Your task to perform on an android device: open app "LinkedIn" Image 0: 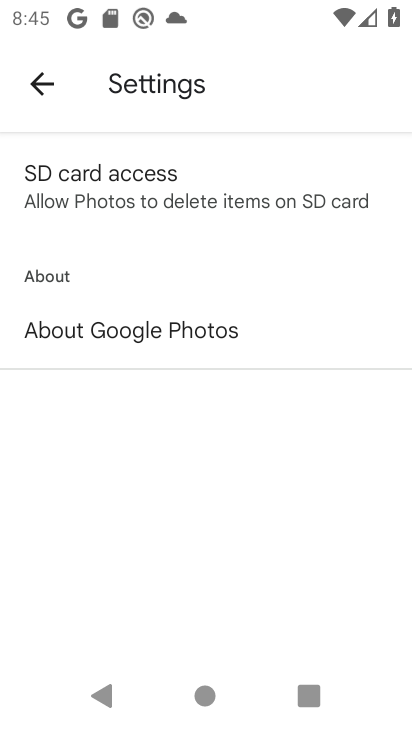
Step 0: click (43, 82)
Your task to perform on an android device: open app "LinkedIn" Image 1: 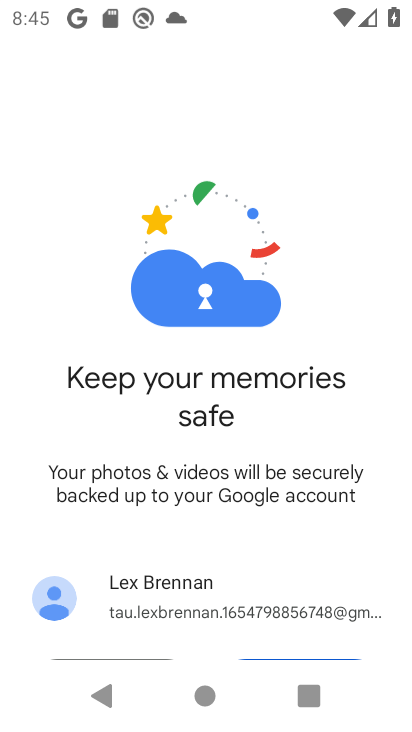
Step 1: press back button
Your task to perform on an android device: open app "LinkedIn" Image 2: 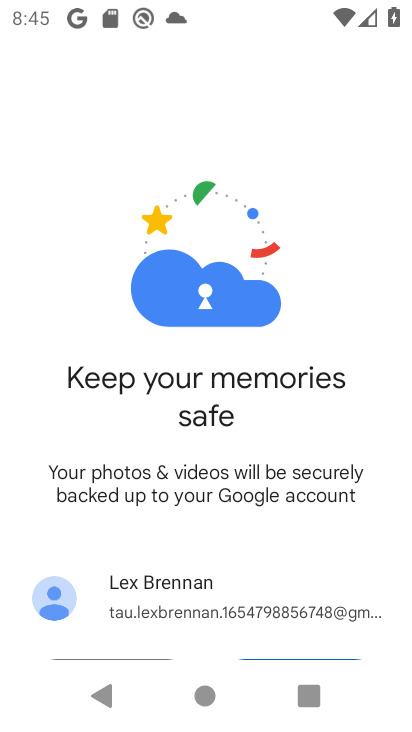
Step 2: press back button
Your task to perform on an android device: open app "LinkedIn" Image 3: 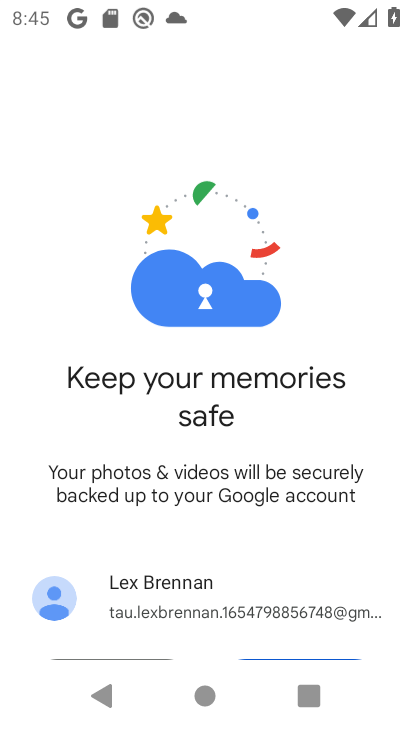
Step 3: press home button
Your task to perform on an android device: open app "LinkedIn" Image 4: 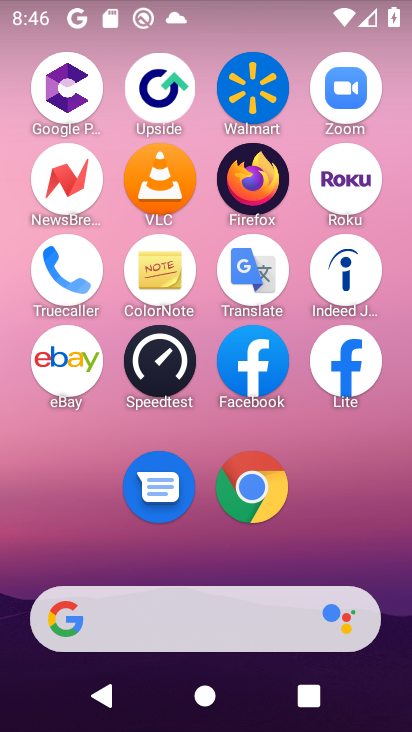
Step 4: press back button
Your task to perform on an android device: open app "LinkedIn" Image 5: 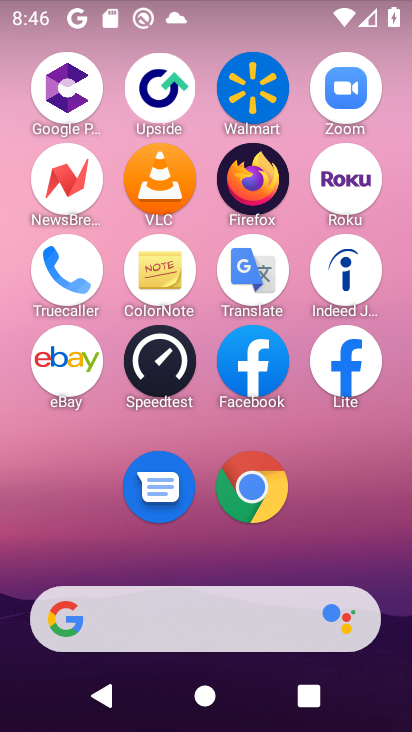
Step 5: press back button
Your task to perform on an android device: open app "LinkedIn" Image 6: 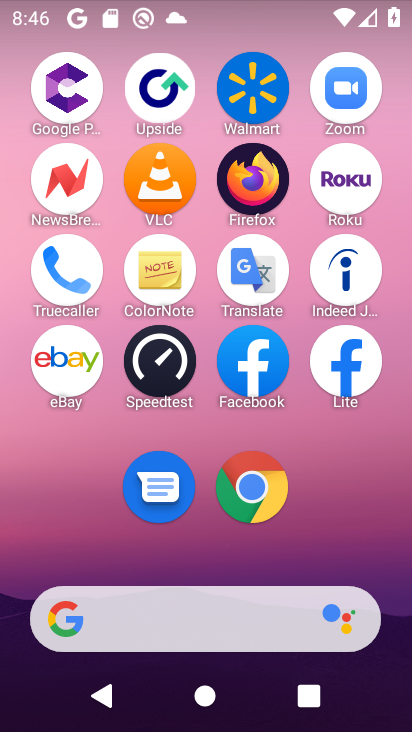
Step 6: press back button
Your task to perform on an android device: open app "LinkedIn" Image 7: 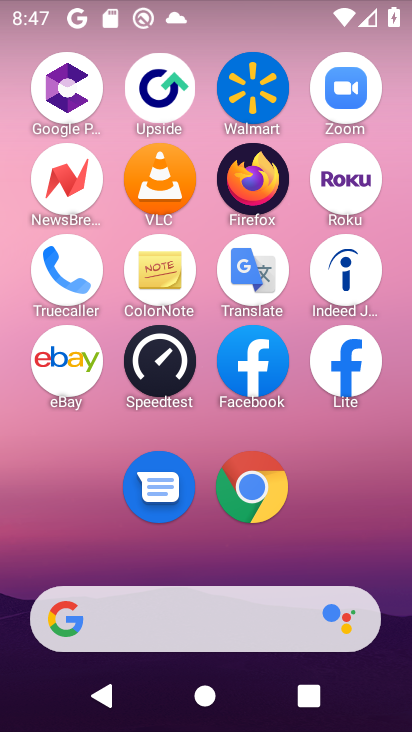
Step 7: drag from (283, 524) to (309, 39)
Your task to perform on an android device: open app "LinkedIn" Image 8: 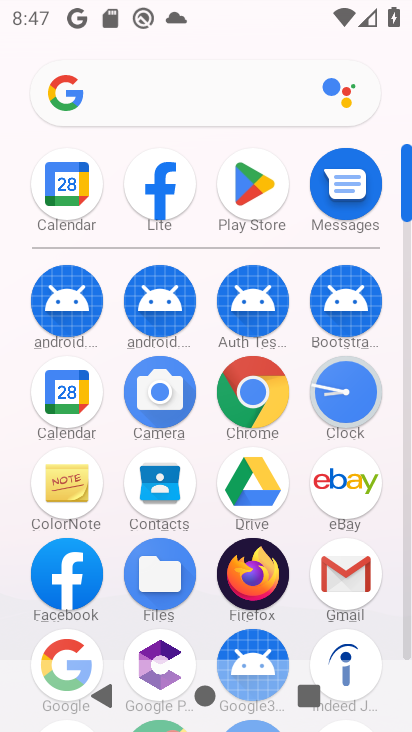
Step 8: click (243, 187)
Your task to perform on an android device: open app "LinkedIn" Image 9: 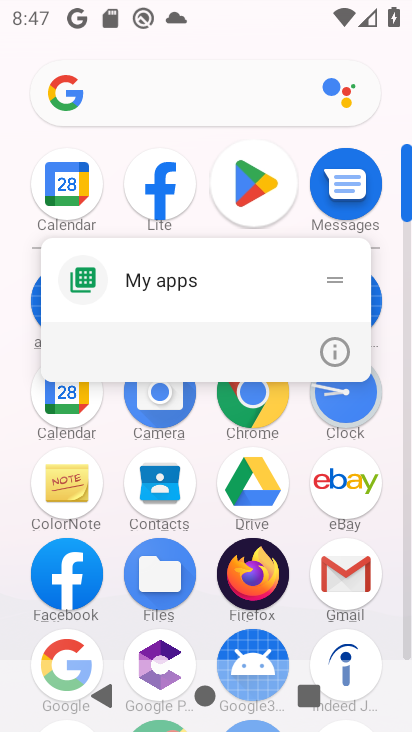
Step 9: click (245, 186)
Your task to perform on an android device: open app "LinkedIn" Image 10: 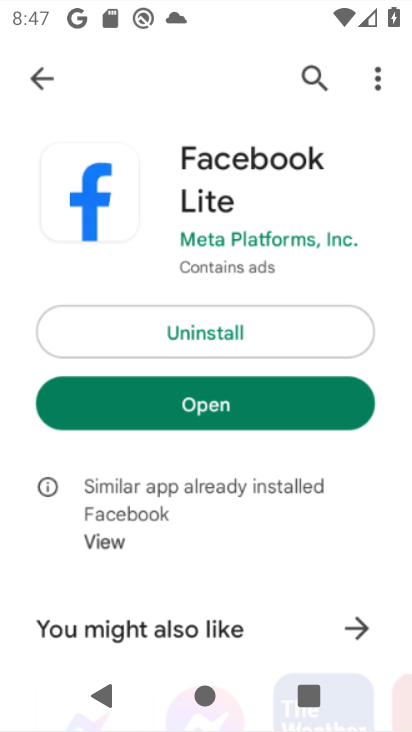
Step 10: click (248, 184)
Your task to perform on an android device: open app "LinkedIn" Image 11: 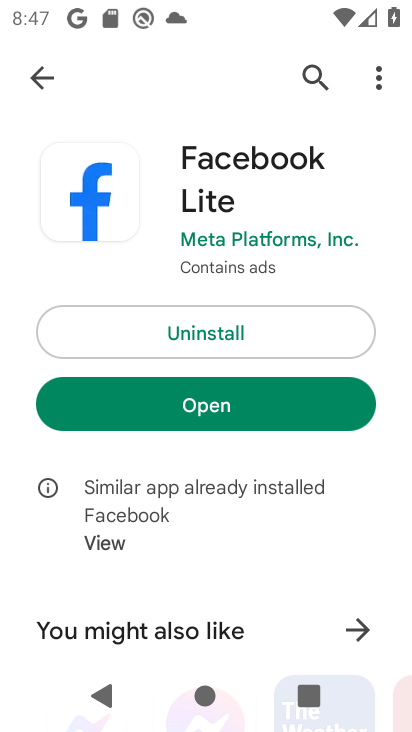
Step 11: click (248, 184)
Your task to perform on an android device: open app "LinkedIn" Image 12: 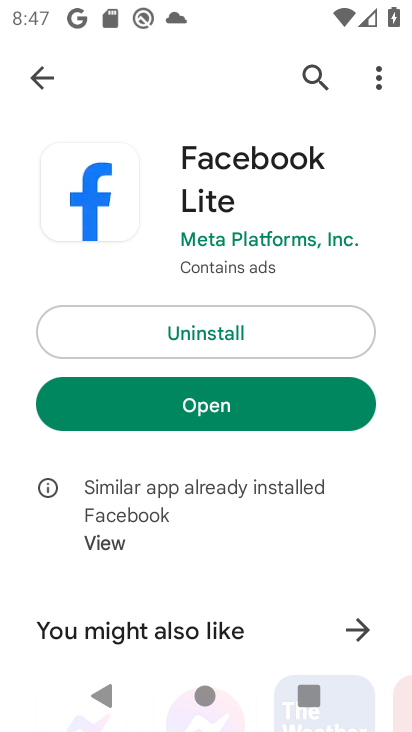
Step 12: click (50, 83)
Your task to perform on an android device: open app "LinkedIn" Image 13: 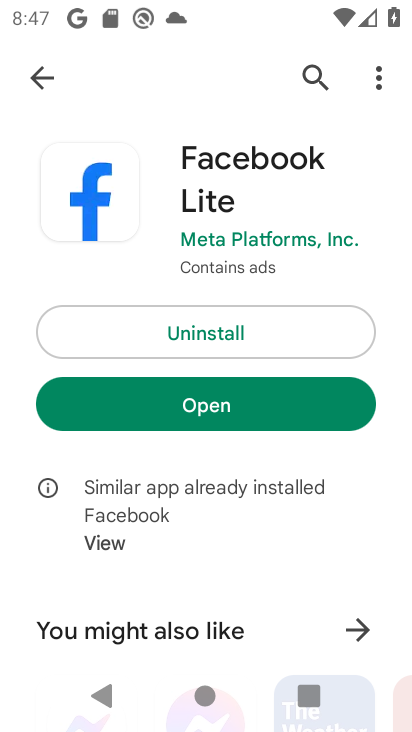
Step 13: press back button
Your task to perform on an android device: open app "LinkedIn" Image 14: 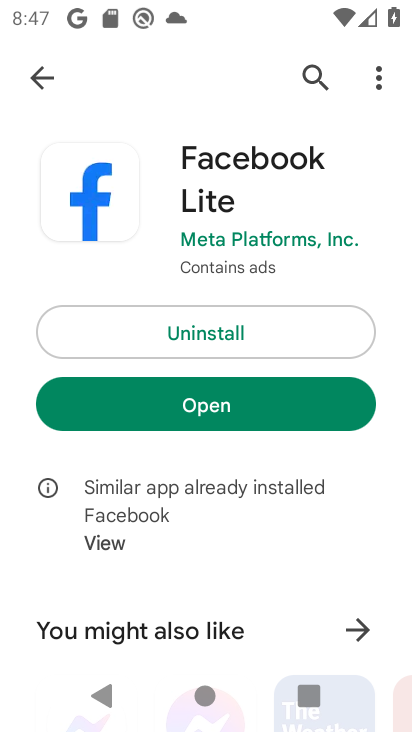
Step 14: press back button
Your task to perform on an android device: open app "LinkedIn" Image 15: 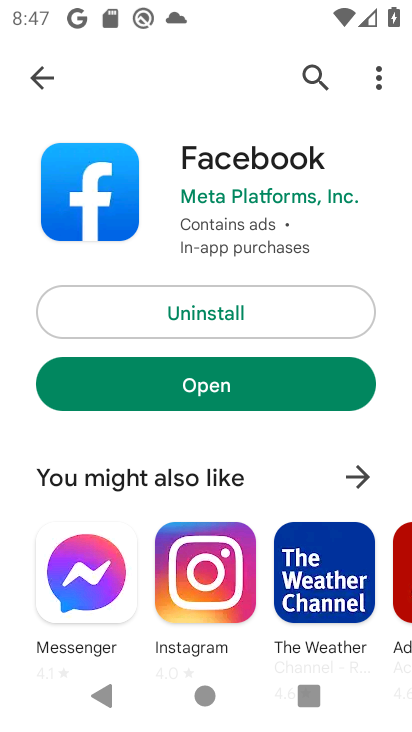
Step 15: press back button
Your task to perform on an android device: open app "LinkedIn" Image 16: 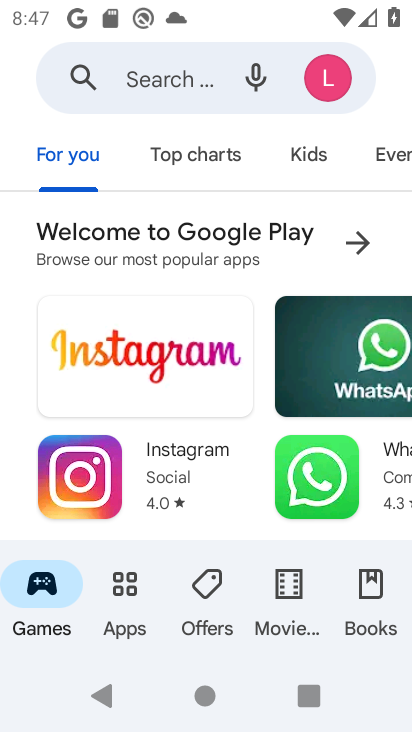
Step 16: click (169, 76)
Your task to perform on an android device: open app "LinkedIn" Image 17: 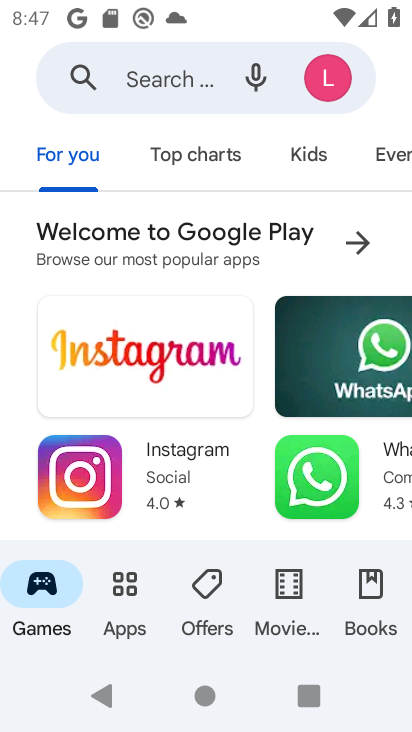
Step 17: click (170, 75)
Your task to perform on an android device: open app "LinkedIn" Image 18: 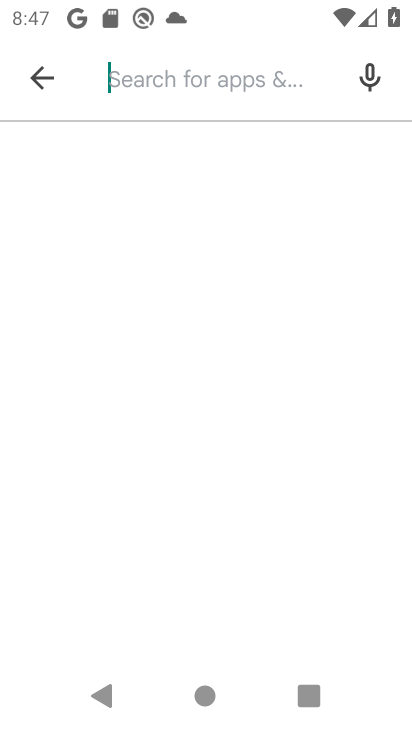
Step 18: click (170, 74)
Your task to perform on an android device: open app "LinkedIn" Image 19: 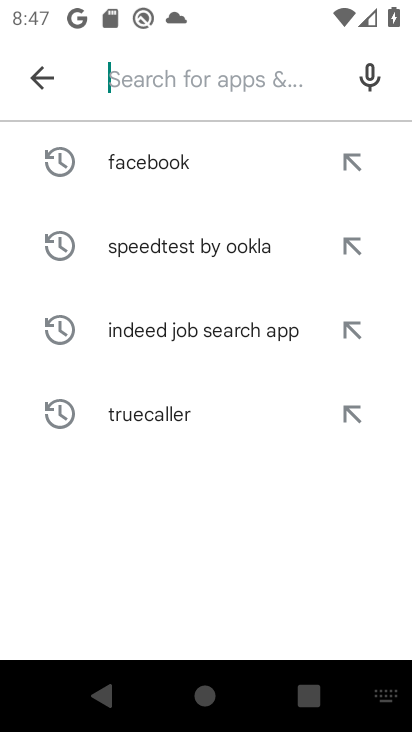
Step 19: type "Linkdin"
Your task to perform on an android device: open app "LinkedIn" Image 20: 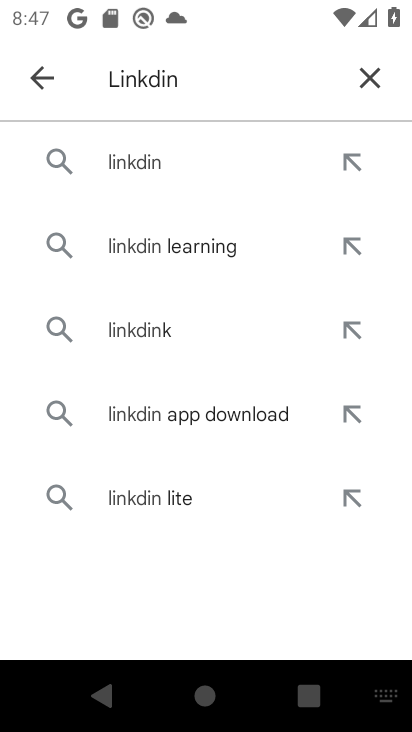
Step 20: click (149, 163)
Your task to perform on an android device: open app "LinkedIn" Image 21: 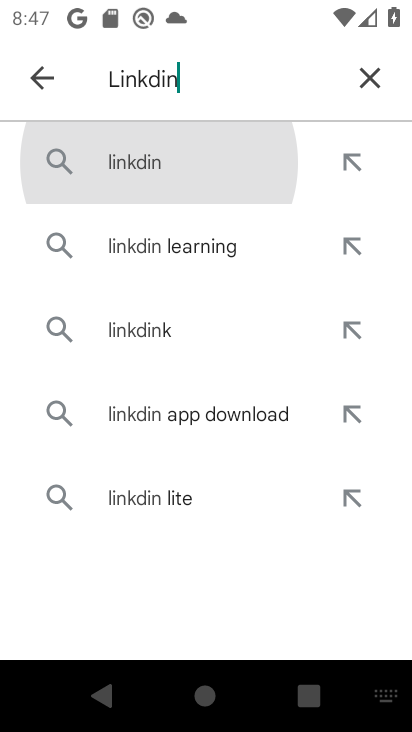
Step 21: click (149, 163)
Your task to perform on an android device: open app "LinkedIn" Image 22: 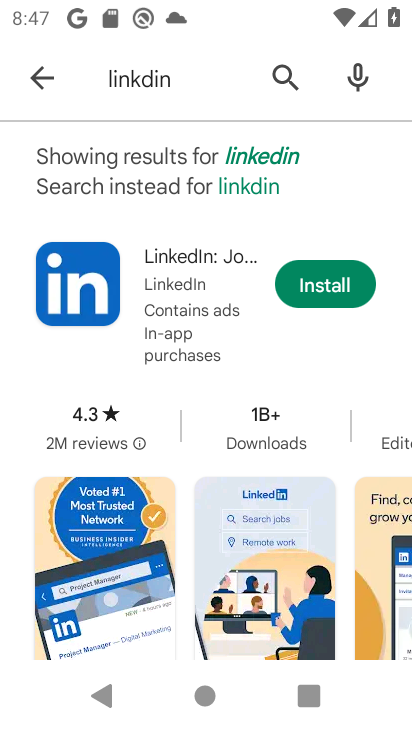
Step 22: click (311, 281)
Your task to perform on an android device: open app "LinkedIn" Image 23: 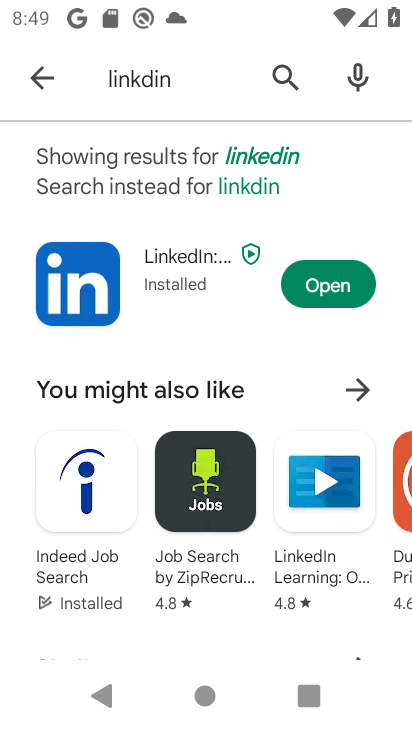
Step 23: click (351, 291)
Your task to perform on an android device: open app "LinkedIn" Image 24: 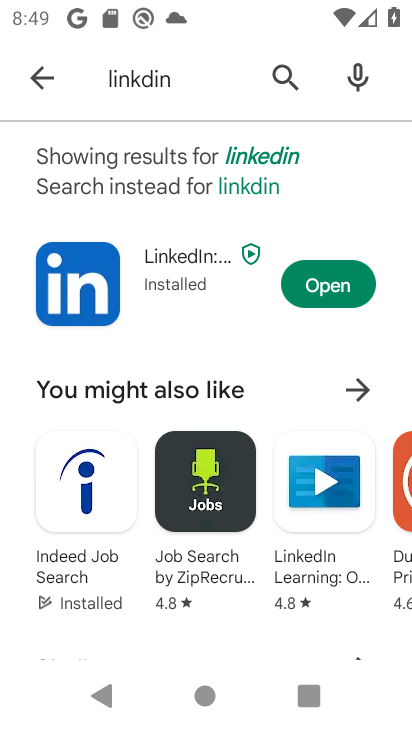
Step 24: click (324, 284)
Your task to perform on an android device: open app "LinkedIn" Image 25: 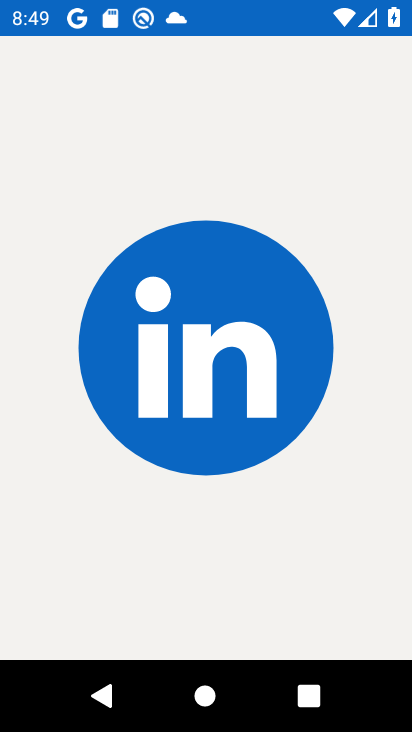
Step 25: click (329, 286)
Your task to perform on an android device: open app "LinkedIn" Image 26: 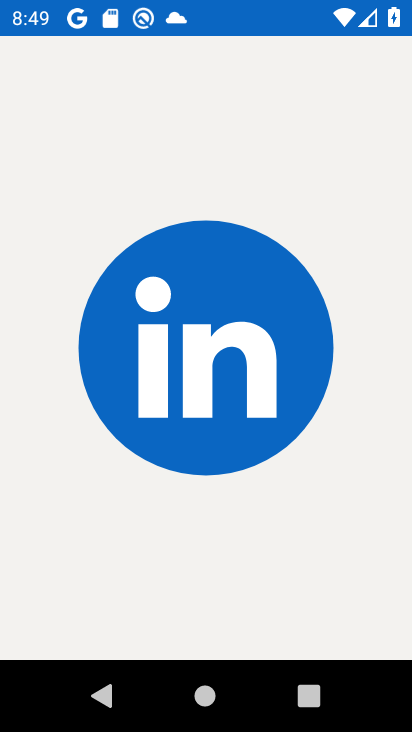
Step 26: task complete